Your task to perform on an android device: What's the weather today? Image 0: 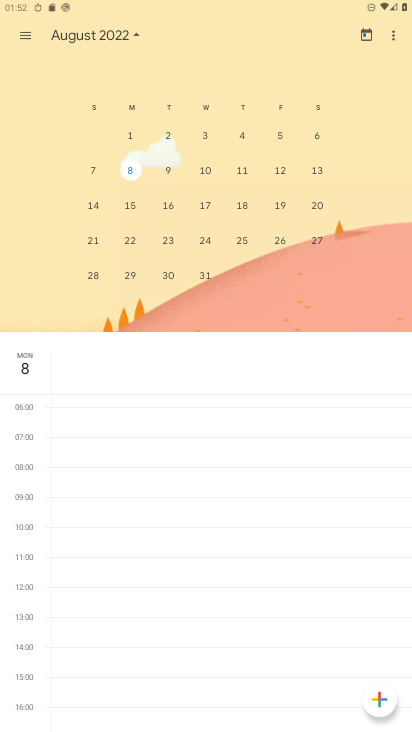
Step 0: click (113, 690)
Your task to perform on an android device: What's the weather today? Image 1: 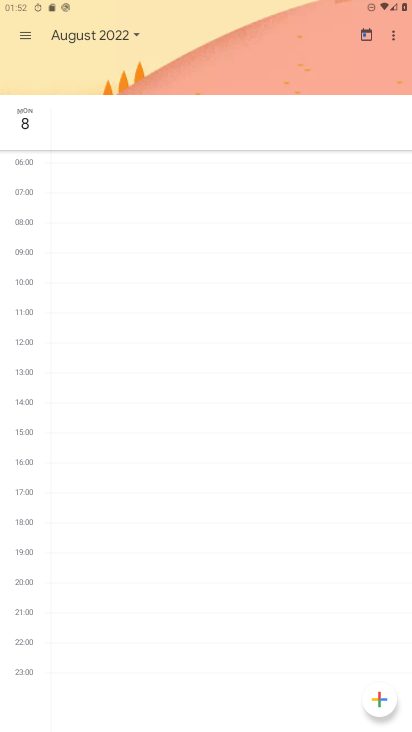
Step 1: press home button
Your task to perform on an android device: What's the weather today? Image 2: 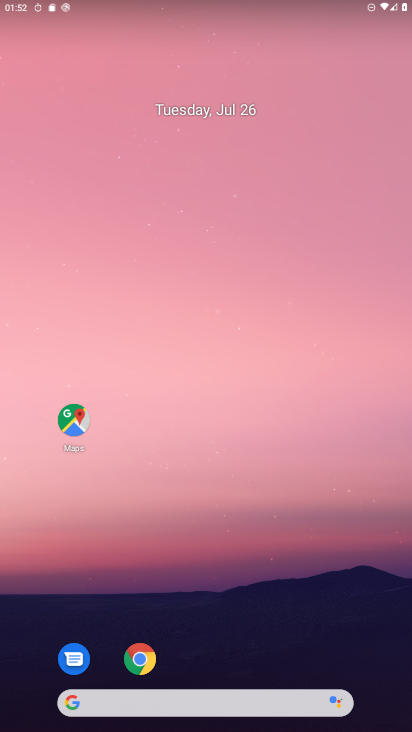
Step 2: click (134, 701)
Your task to perform on an android device: What's the weather today? Image 3: 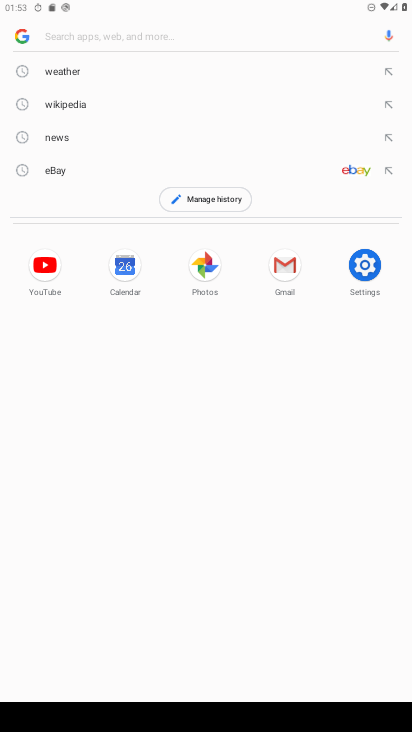
Step 3: type "What's the weather today"
Your task to perform on an android device: What's the weather today? Image 4: 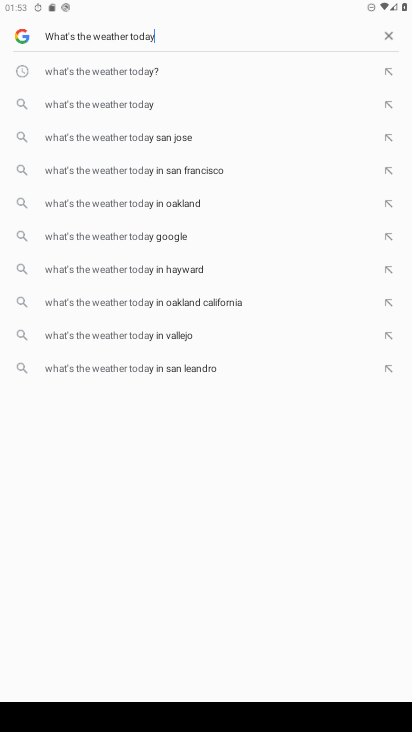
Step 4: type ""
Your task to perform on an android device: What's the weather today? Image 5: 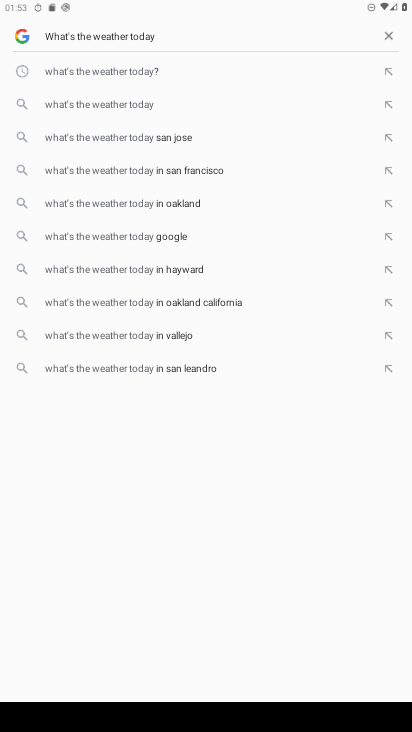
Step 5: click (128, 74)
Your task to perform on an android device: What's the weather today? Image 6: 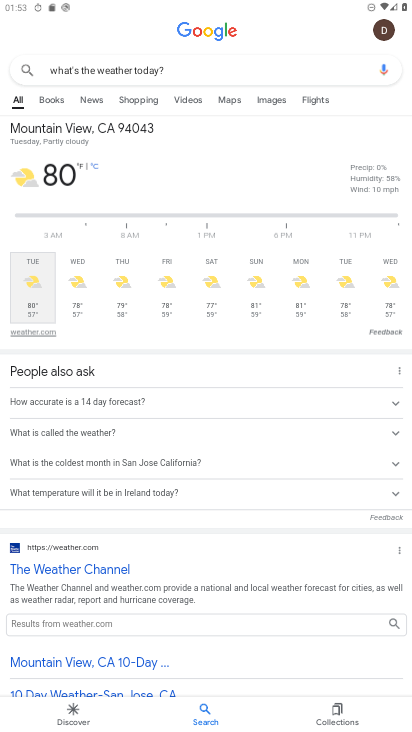
Step 6: task complete